Your task to perform on an android device: add a contact Image 0: 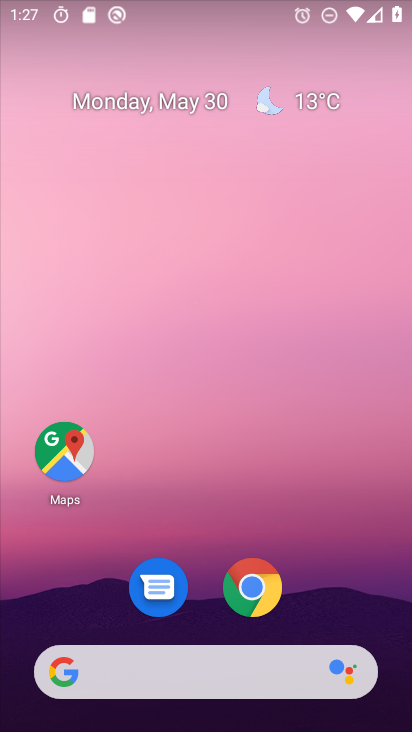
Step 0: drag from (330, 569) to (304, 152)
Your task to perform on an android device: add a contact Image 1: 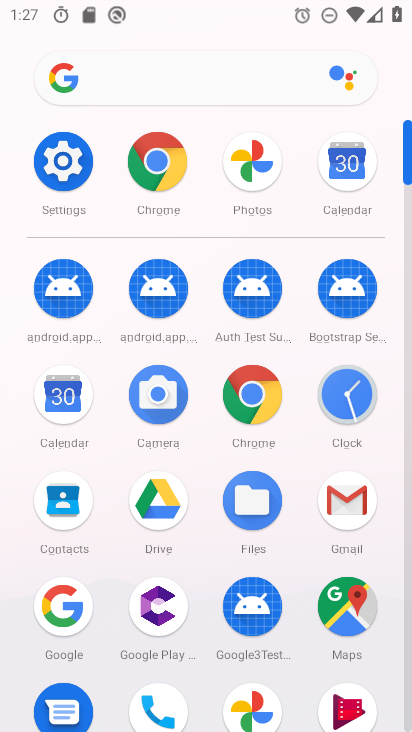
Step 1: click (249, 390)
Your task to perform on an android device: add a contact Image 2: 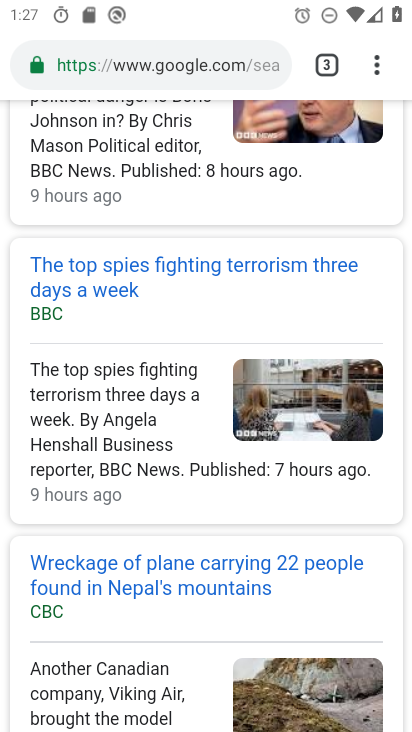
Step 2: press home button
Your task to perform on an android device: add a contact Image 3: 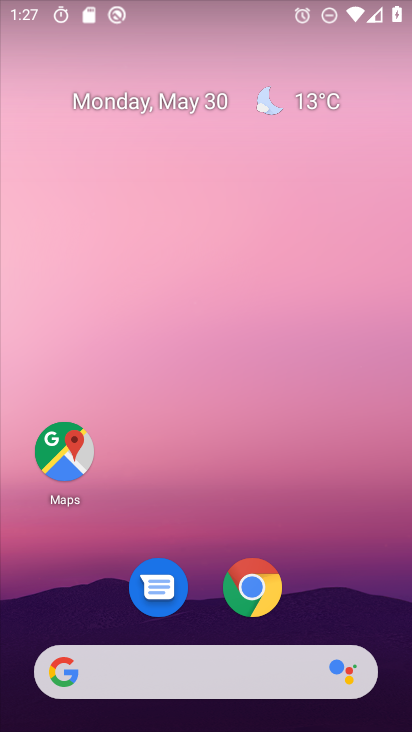
Step 3: drag from (358, 563) to (266, 114)
Your task to perform on an android device: add a contact Image 4: 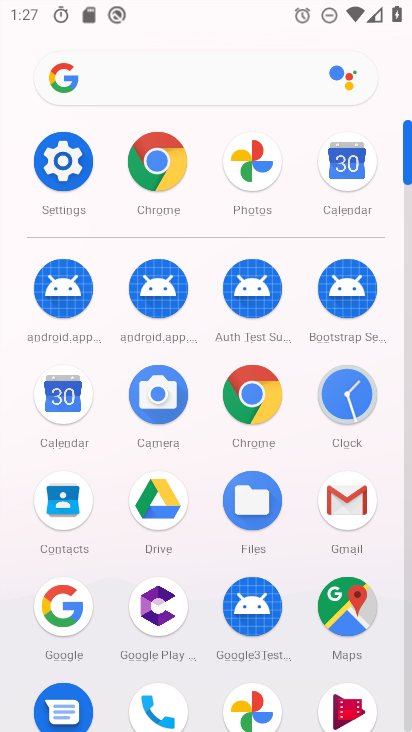
Step 4: click (67, 507)
Your task to perform on an android device: add a contact Image 5: 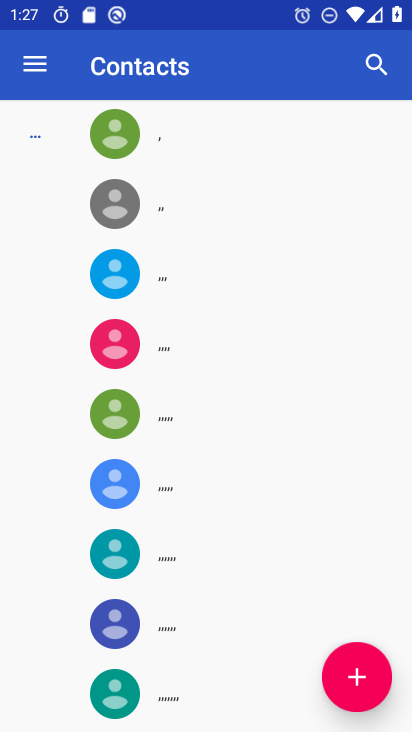
Step 5: click (374, 678)
Your task to perform on an android device: add a contact Image 6: 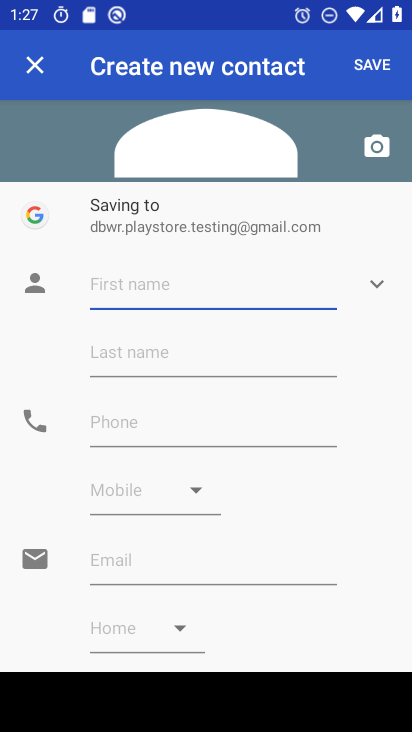
Step 6: click (259, 277)
Your task to perform on an android device: add a contact Image 7: 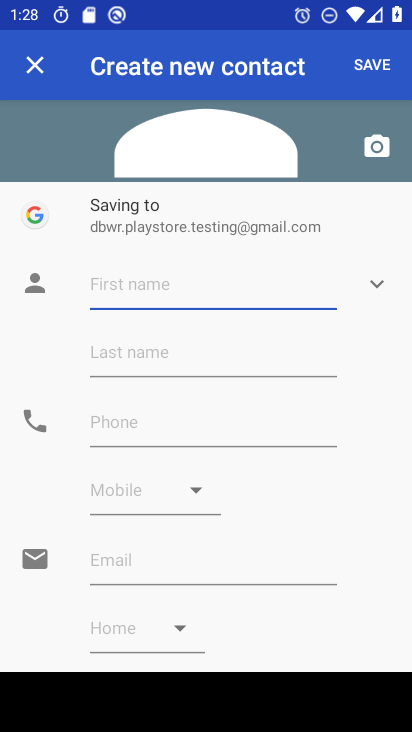
Step 7: type "lavish"
Your task to perform on an android device: add a contact Image 8: 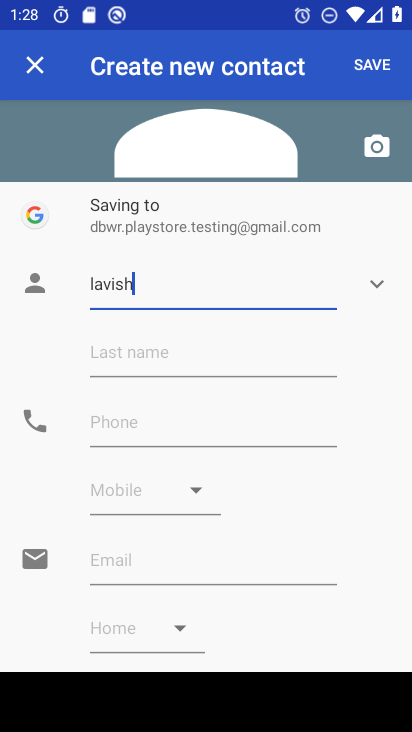
Step 8: click (387, 73)
Your task to perform on an android device: add a contact Image 9: 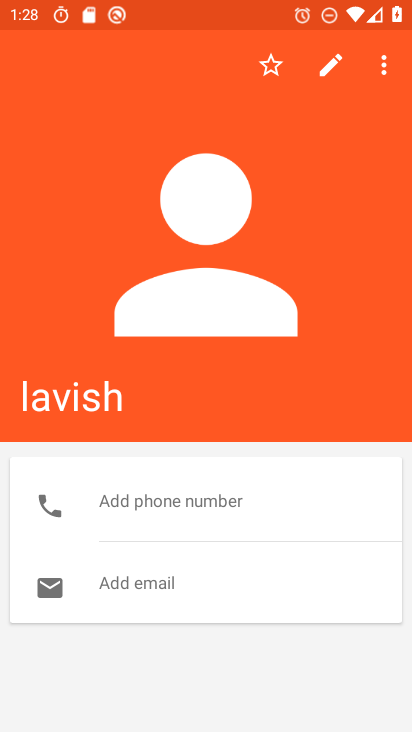
Step 9: task complete